Your task to perform on an android device: Show me productivity apps on the Play Store Image 0: 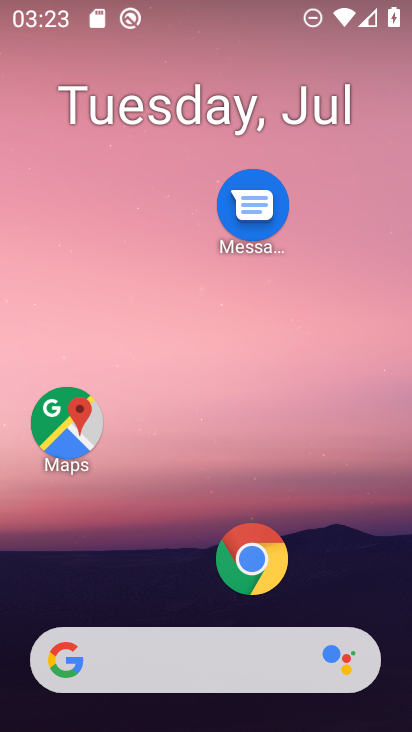
Step 0: drag from (130, 595) to (170, 31)
Your task to perform on an android device: Show me productivity apps on the Play Store Image 1: 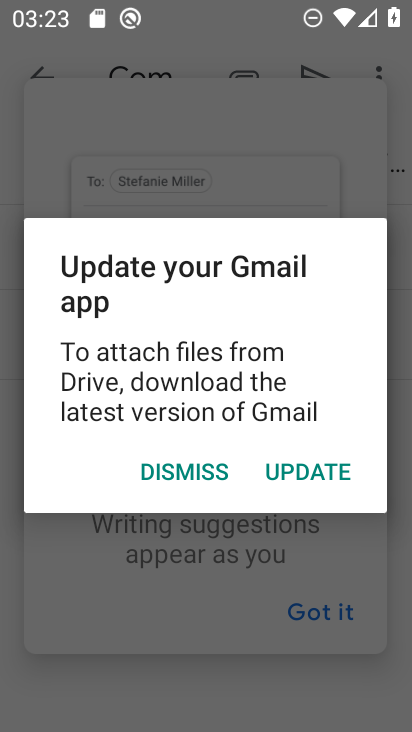
Step 1: click (179, 464)
Your task to perform on an android device: Show me productivity apps on the Play Store Image 2: 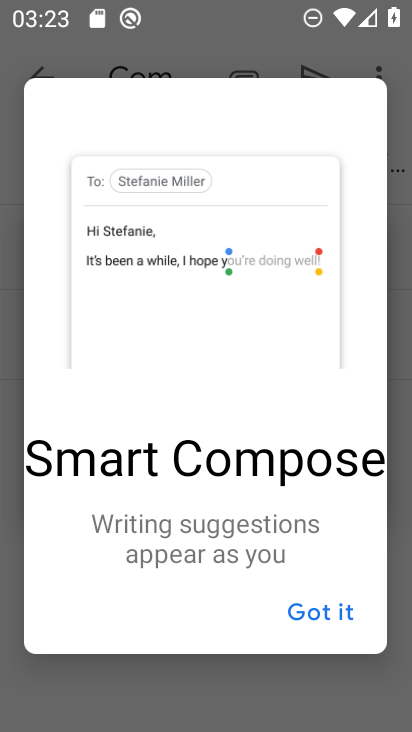
Step 2: click (341, 623)
Your task to perform on an android device: Show me productivity apps on the Play Store Image 3: 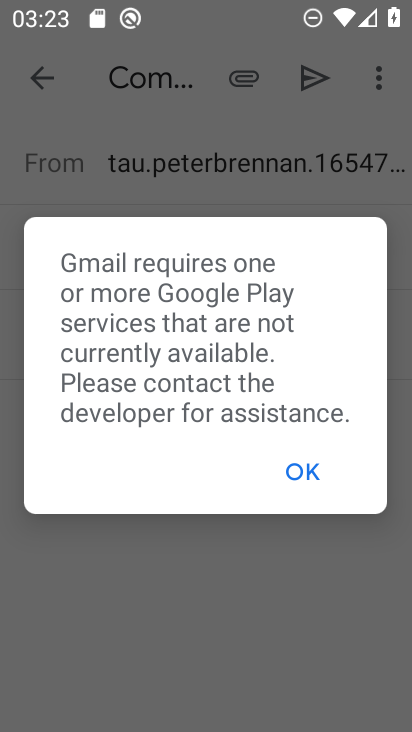
Step 3: click (288, 466)
Your task to perform on an android device: Show me productivity apps on the Play Store Image 4: 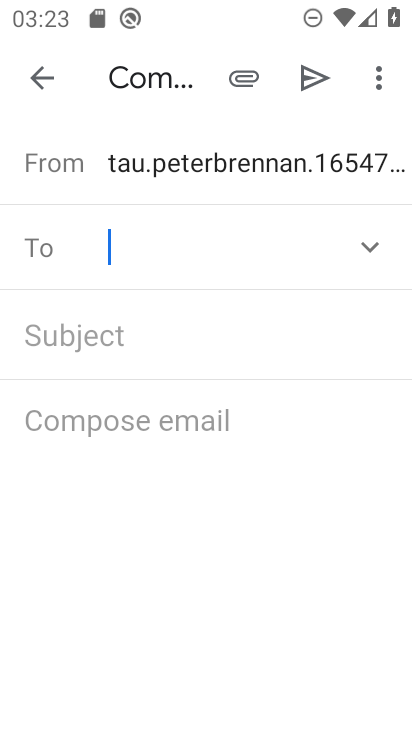
Step 4: click (39, 66)
Your task to perform on an android device: Show me productivity apps on the Play Store Image 5: 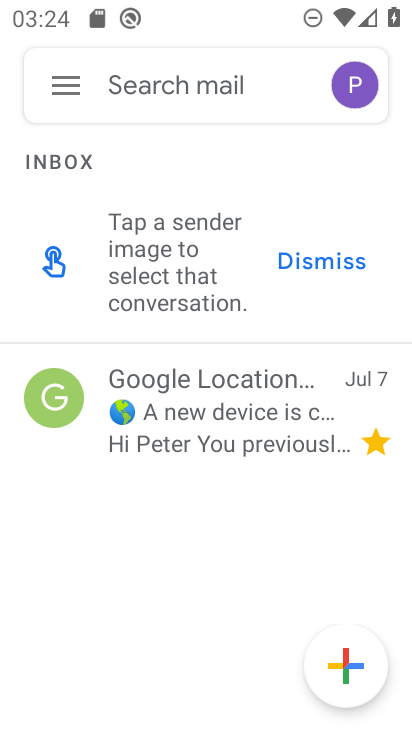
Step 5: press back button
Your task to perform on an android device: Show me productivity apps on the Play Store Image 6: 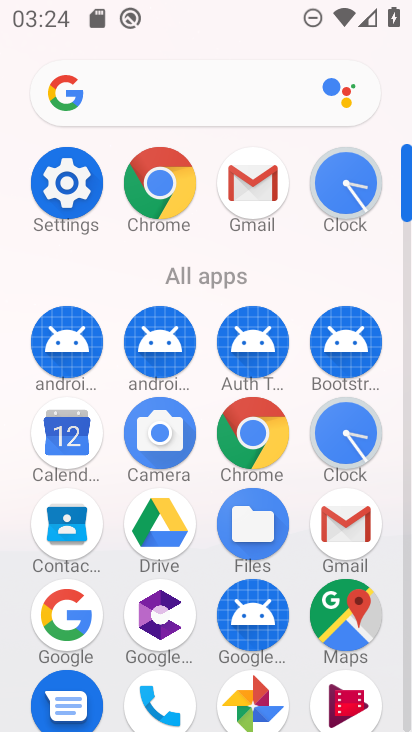
Step 6: press back button
Your task to perform on an android device: Show me productivity apps on the Play Store Image 7: 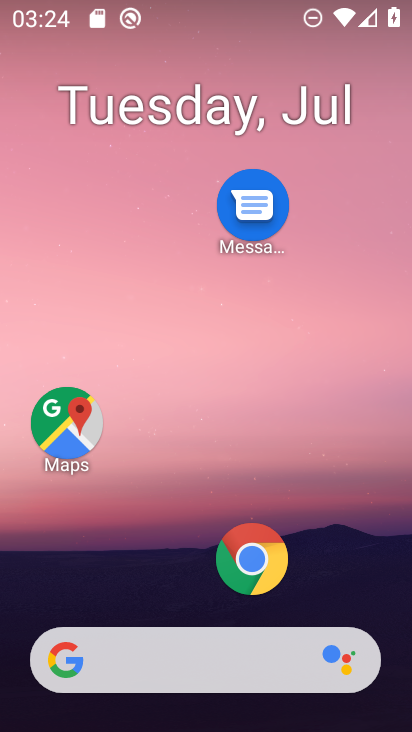
Step 7: drag from (187, 531) to (257, 23)
Your task to perform on an android device: Show me productivity apps on the Play Store Image 8: 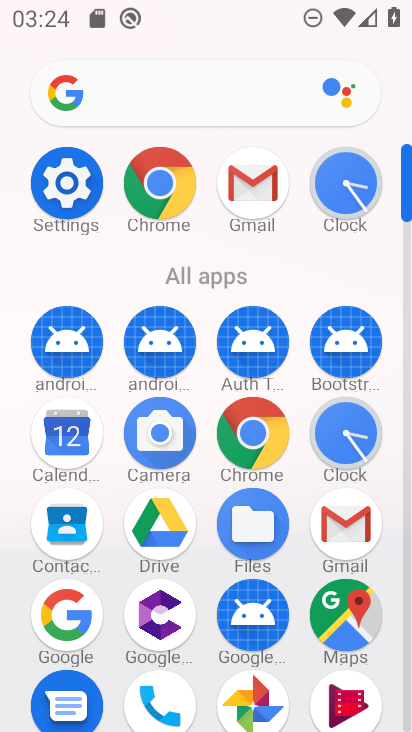
Step 8: drag from (202, 625) to (315, 54)
Your task to perform on an android device: Show me productivity apps on the Play Store Image 9: 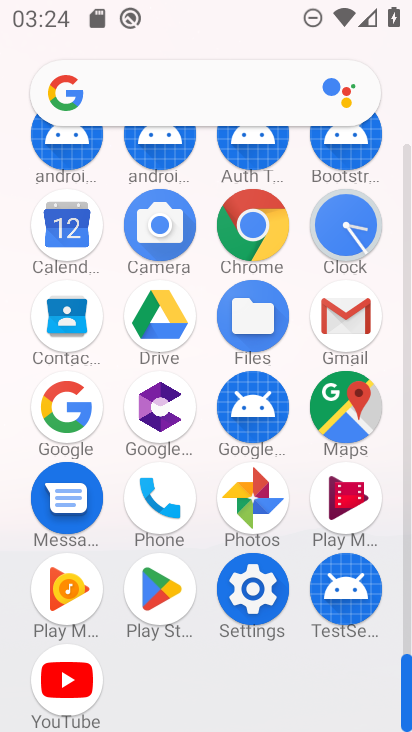
Step 9: click (161, 587)
Your task to perform on an android device: Show me productivity apps on the Play Store Image 10: 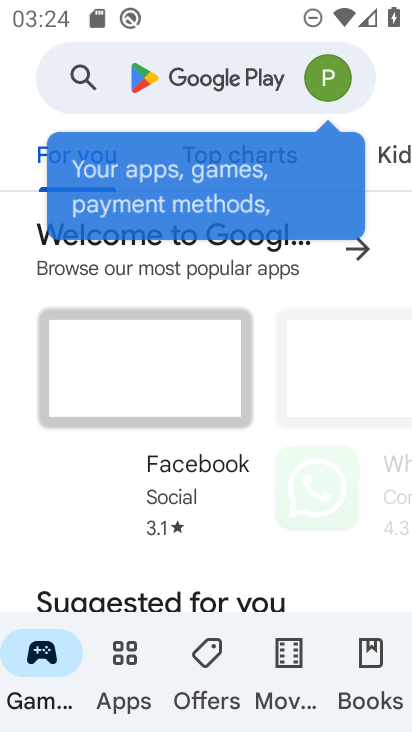
Step 10: click (131, 654)
Your task to perform on an android device: Show me productivity apps on the Play Store Image 11: 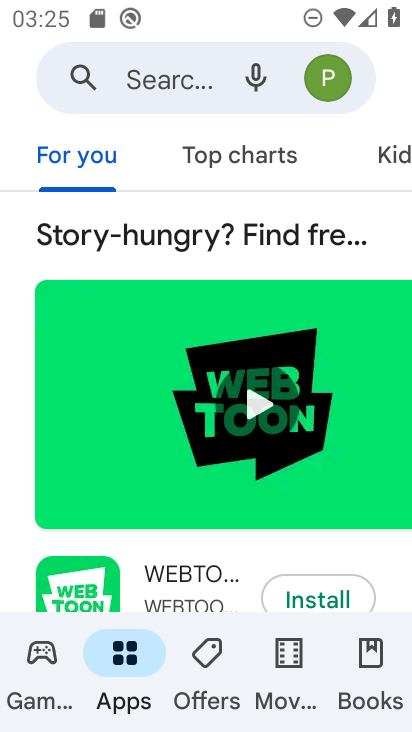
Step 11: drag from (187, 551) to (255, 112)
Your task to perform on an android device: Show me productivity apps on the Play Store Image 12: 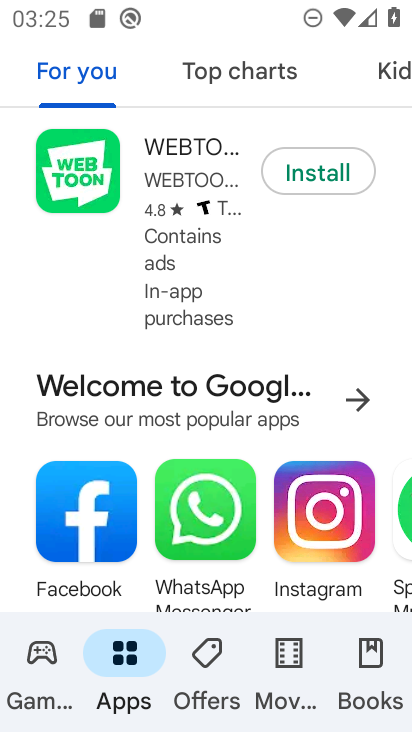
Step 12: drag from (176, 586) to (261, 85)
Your task to perform on an android device: Show me productivity apps on the Play Store Image 13: 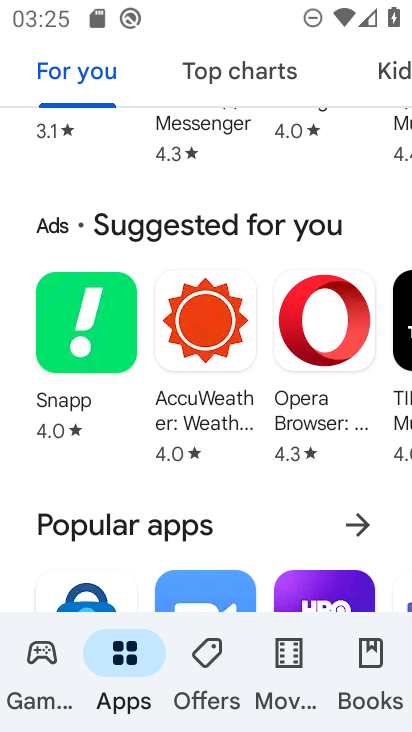
Step 13: drag from (184, 578) to (239, 171)
Your task to perform on an android device: Show me productivity apps on the Play Store Image 14: 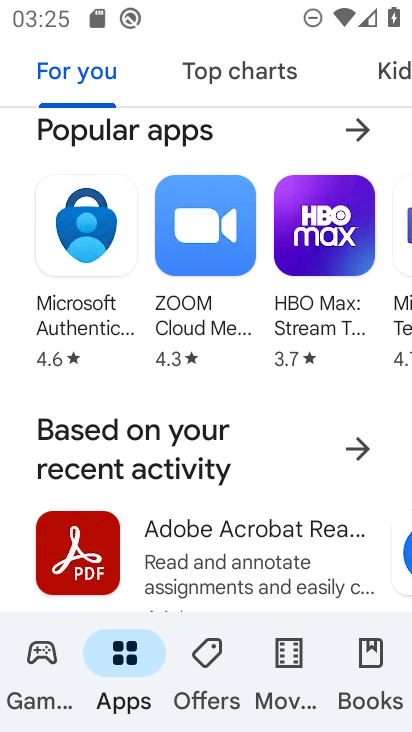
Step 14: drag from (219, 570) to (278, 139)
Your task to perform on an android device: Show me productivity apps on the Play Store Image 15: 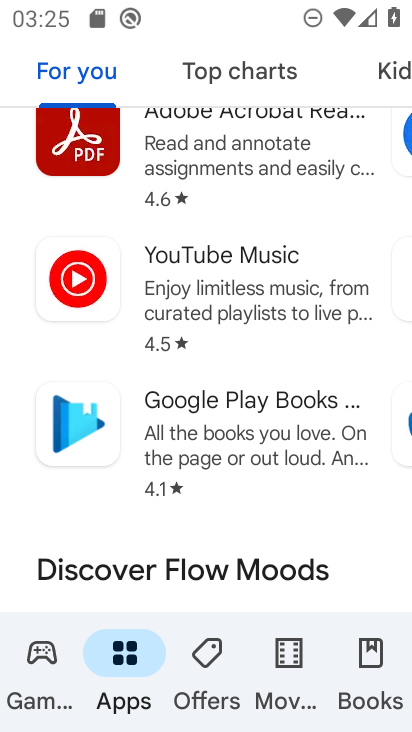
Step 15: drag from (196, 557) to (259, 66)
Your task to perform on an android device: Show me productivity apps on the Play Store Image 16: 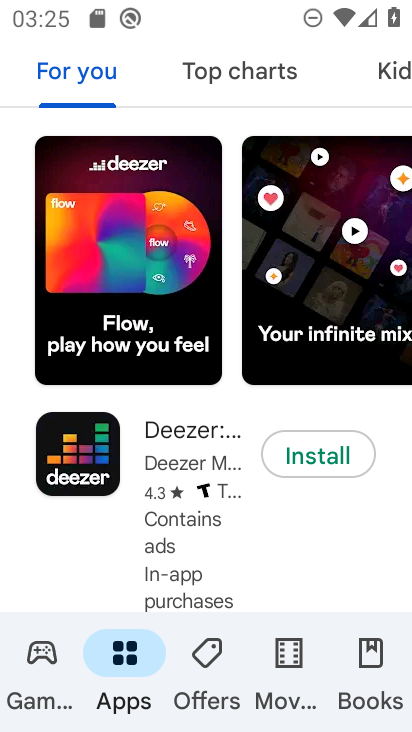
Step 16: drag from (214, 575) to (294, 76)
Your task to perform on an android device: Show me productivity apps on the Play Store Image 17: 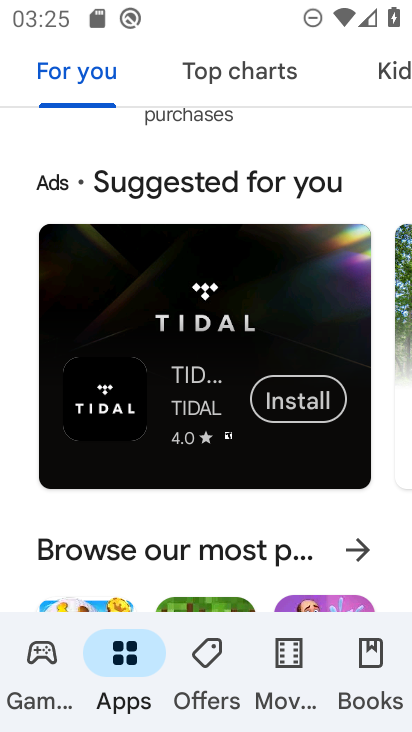
Step 17: drag from (197, 510) to (271, 41)
Your task to perform on an android device: Show me productivity apps on the Play Store Image 18: 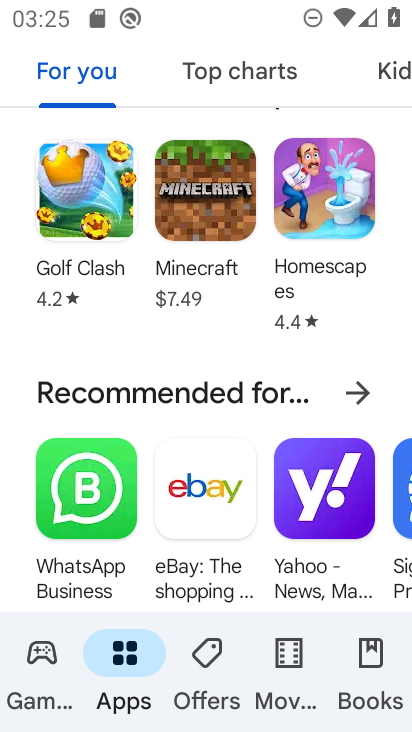
Step 18: drag from (211, 566) to (311, 144)
Your task to perform on an android device: Show me productivity apps on the Play Store Image 19: 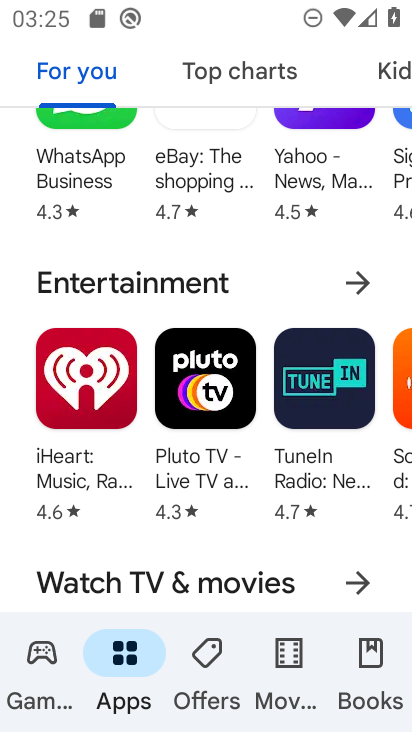
Step 19: drag from (209, 524) to (306, 80)
Your task to perform on an android device: Show me productivity apps on the Play Store Image 20: 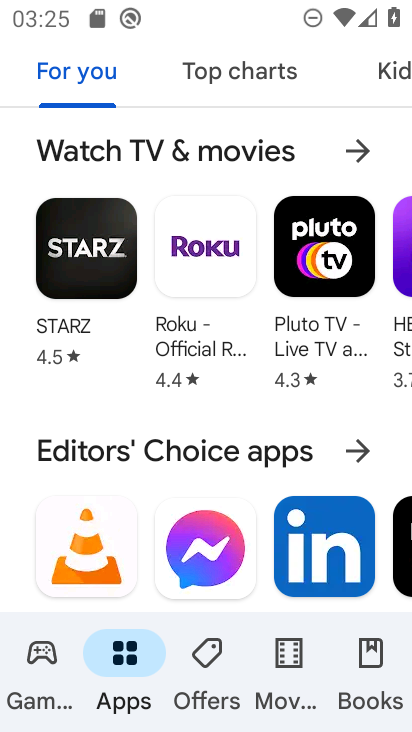
Step 20: drag from (217, 564) to (292, 173)
Your task to perform on an android device: Show me productivity apps on the Play Store Image 21: 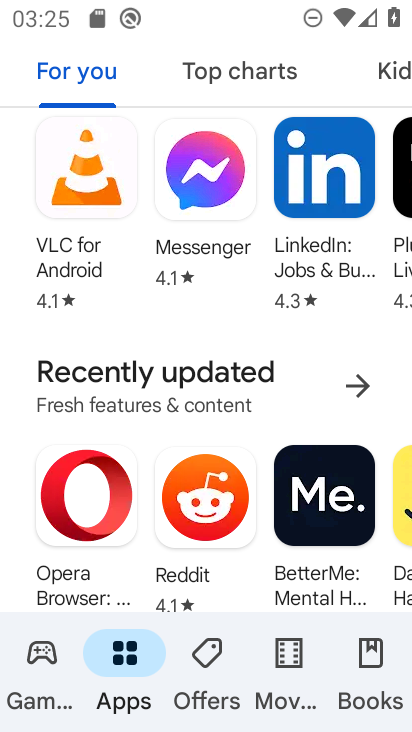
Step 21: drag from (219, 564) to (339, 103)
Your task to perform on an android device: Show me productivity apps on the Play Store Image 22: 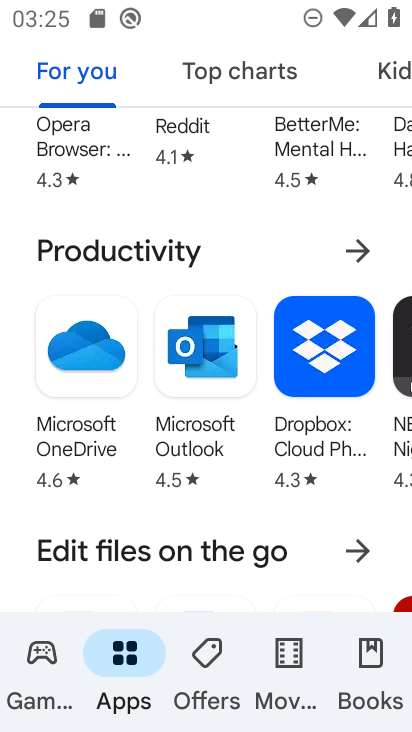
Step 22: click (359, 242)
Your task to perform on an android device: Show me productivity apps on the Play Store Image 23: 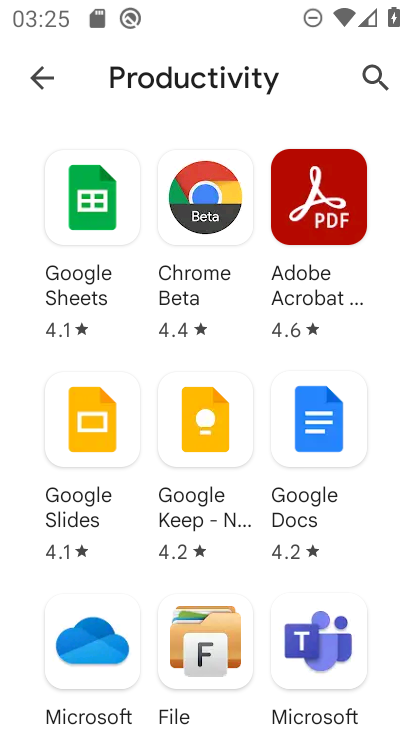
Step 23: task complete